Your task to perform on an android device: see creations saved in the google photos Image 0: 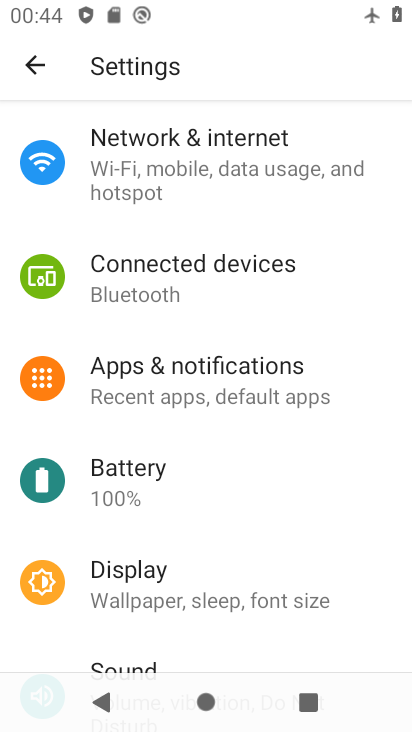
Step 0: press home button
Your task to perform on an android device: see creations saved in the google photos Image 1: 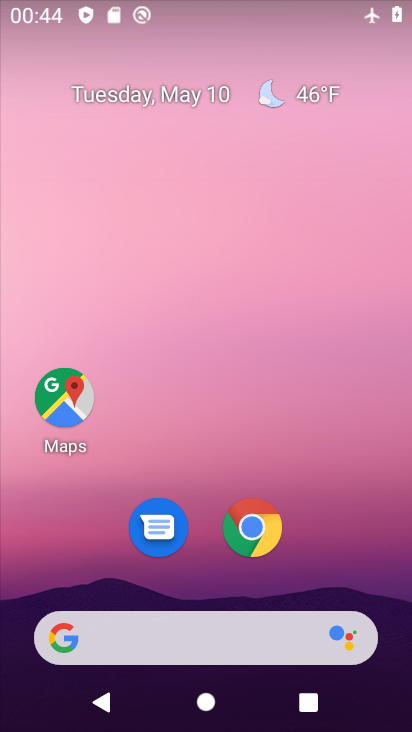
Step 1: drag from (329, 584) to (227, 158)
Your task to perform on an android device: see creations saved in the google photos Image 2: 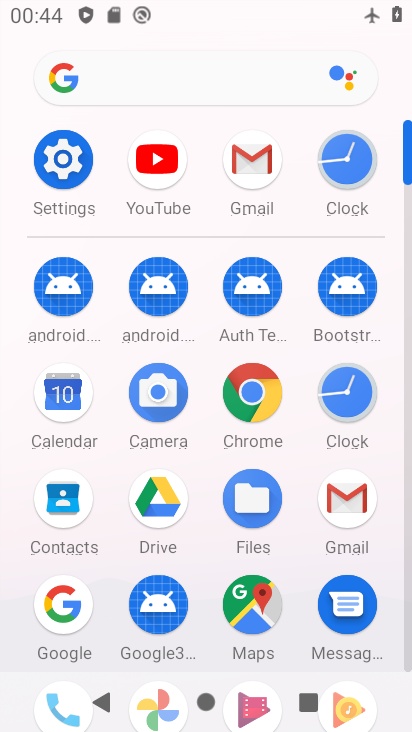
Step 2: drag from (209, 633) to (182, 379)
Your task to perform on an android device: see creations saved in the google photos Image 3: 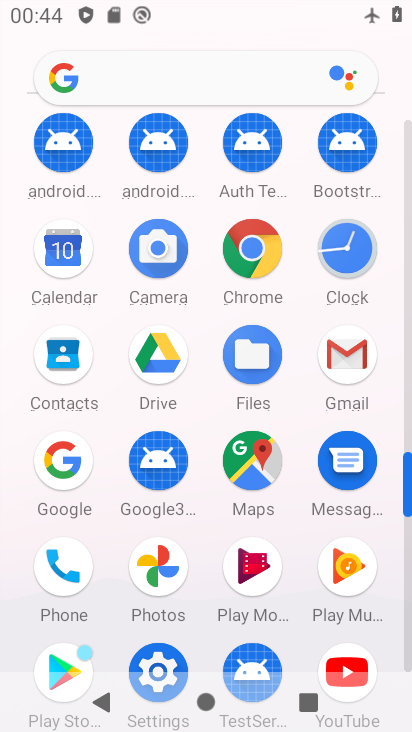
Step 3: click (161, 579)
Your task to perform on an android device: see creations saved in the google photos Image 4: 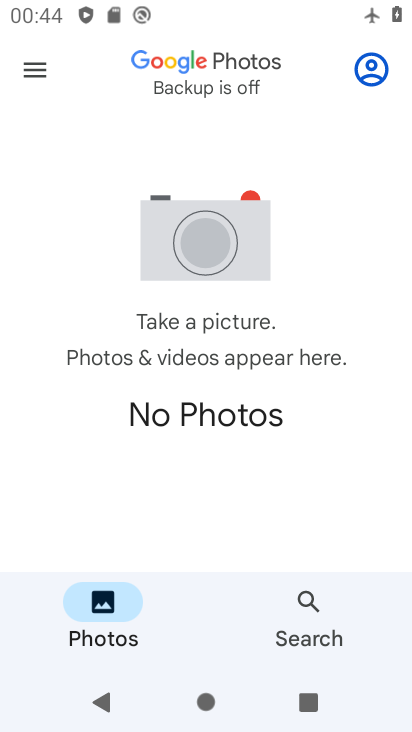
Step 4: click (36, 69)
Your task to perform on an android device: see creations saved in the google photos Image 5: 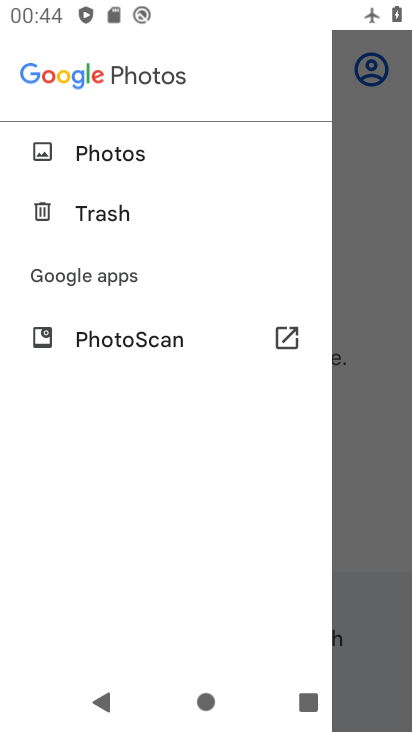
Step 5: click (338, 558)
Your task to perform on an android device: see creations saved in the google photos Image 6: 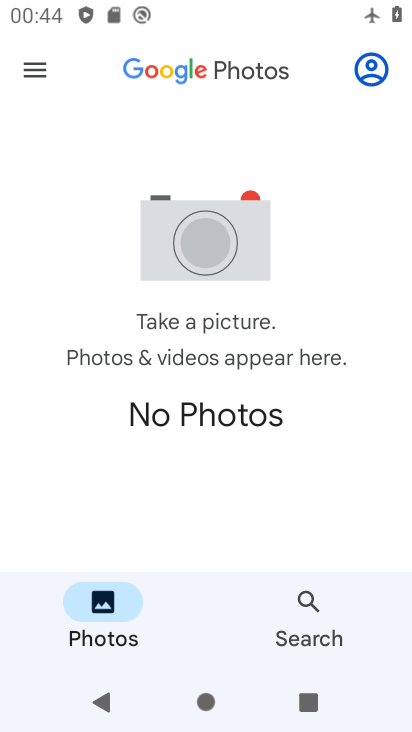
Step 6: click (315, 602)
Your task to perform on an android device: see creations saved in the google photos Image 7: 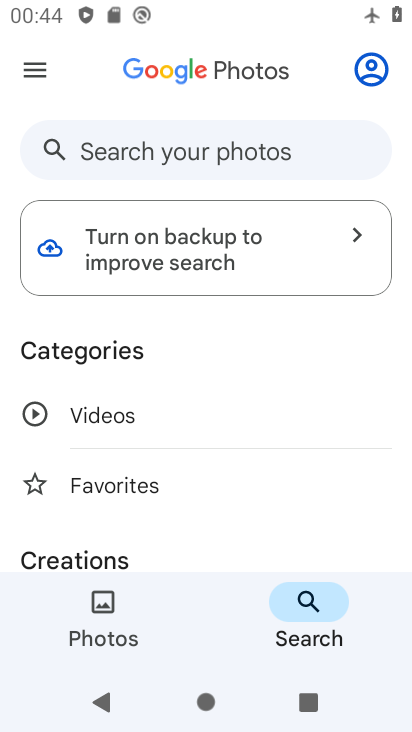
Step 7: drag from (177, 520) to (170, 324)
Your task to perform on an android device: see creations saved in the google photos Image 8: 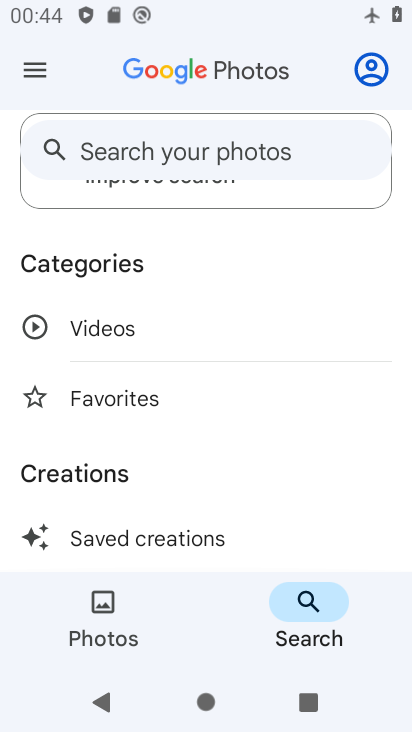
Step 8: click (118, 547)
Your task to perform on an android device: see creations saved in the google photos Image 9: 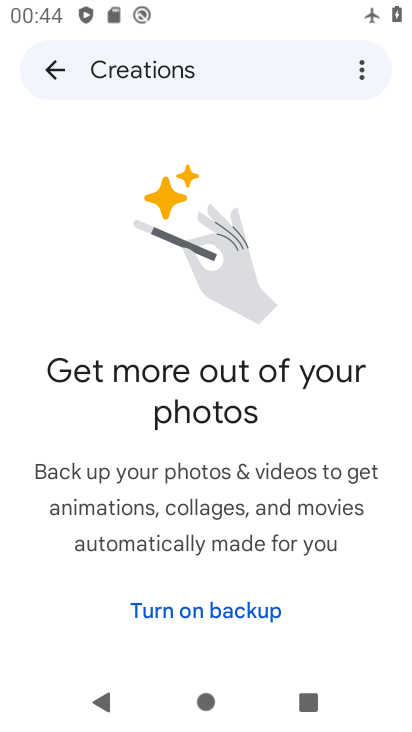
Step 9: task complete